Your task to perform on an android device: change the clock display to show seconds Image 0: 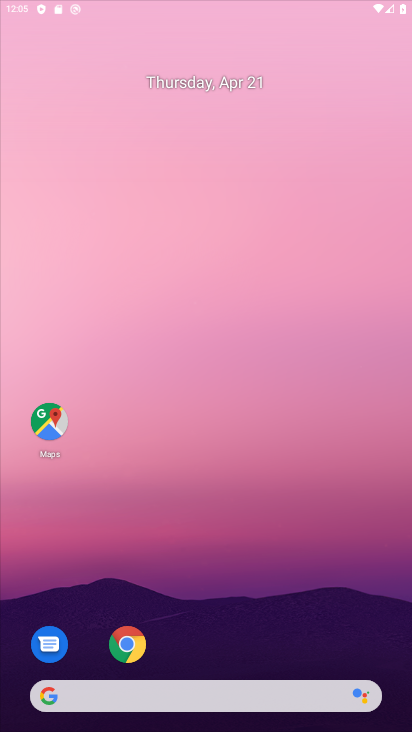
Step 0: click (50, 412)
Your task to perform on an android device: change the clock display to show seconds Image 1: 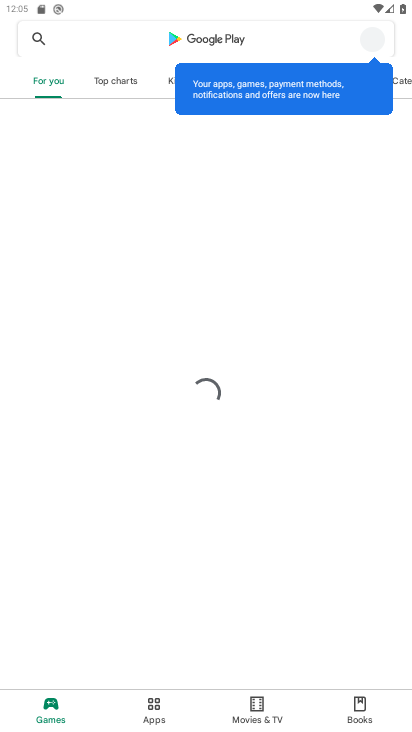
Step 1: press back button
Your task to perform on an android device: change the clock display to show seconds Image 2: 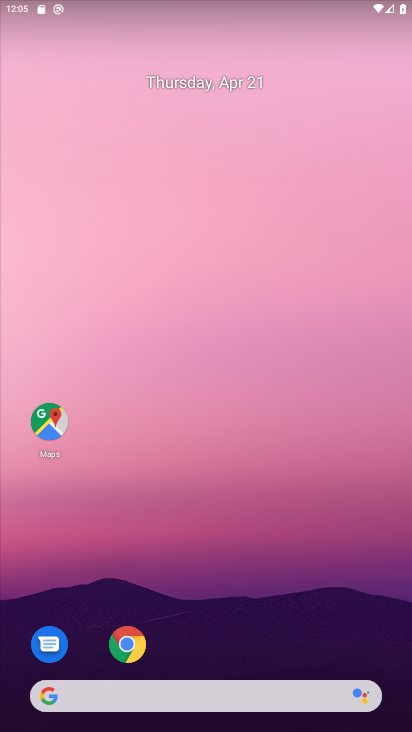
Step 2: drag from (249, 529) to (313, 54)
Your task to perform on an android device: change the clock display to show seconds Image 3: 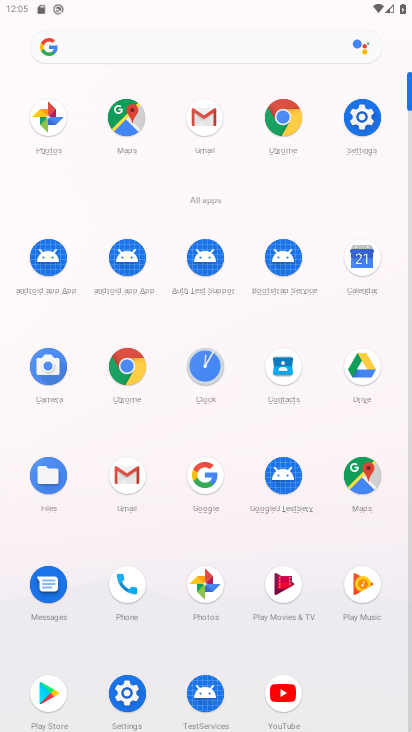
Step 3: click (205, 367)
Your task to perform on an android device: change the clock display to show seconds Image 4: 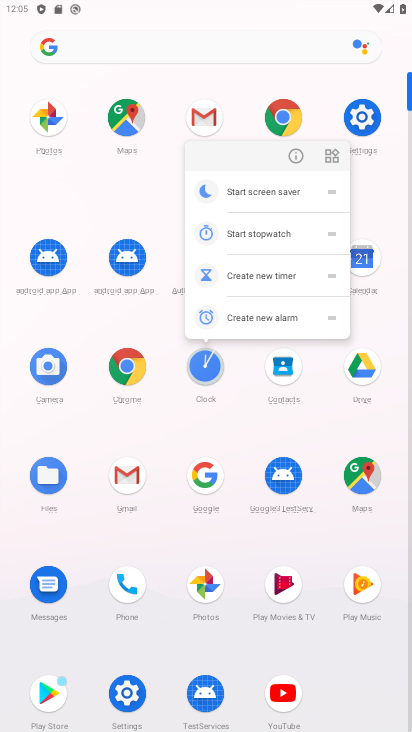
Step 4: click (209, 365)
Your task to perform on an android device: change the clock display to show seconds Image 5: 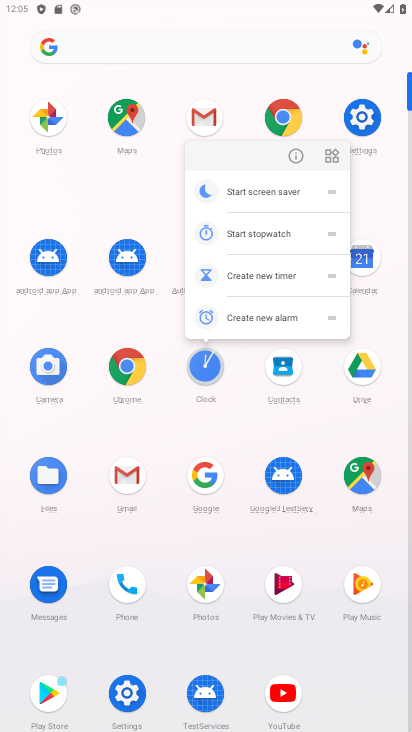
Step 5: click (209, 365)
Your task to perform on an android device: change the clock display to show seconds Image 6: 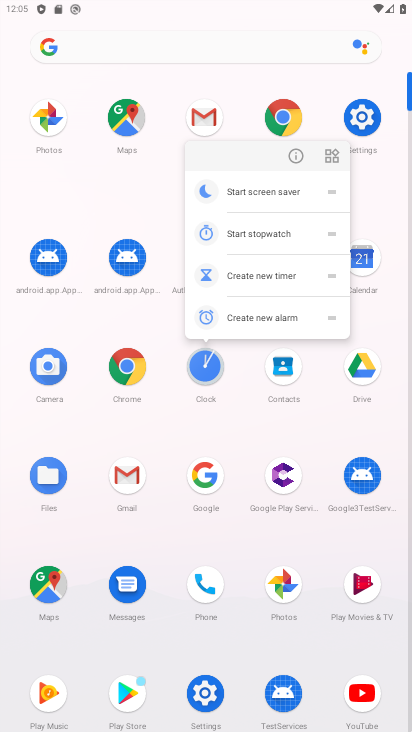
Step 6: click (207, 367)
Your task to perform on an android device: change the clock display to show seconds Image 7: 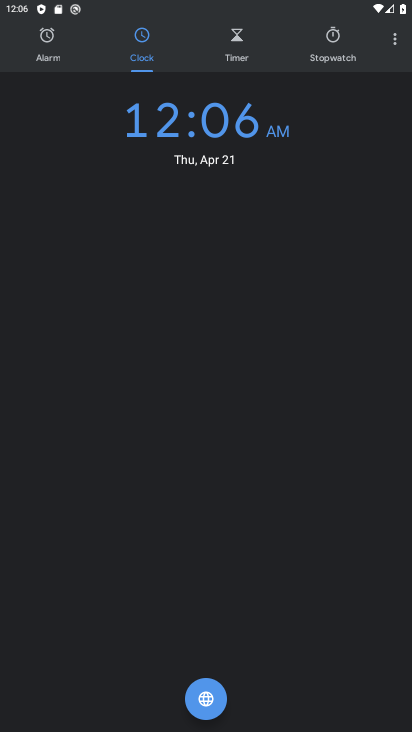
Step 7: drag from (393, 37) to (355, 90)
Your task to perform on an android device: change the clock display to show seconds Image 8: 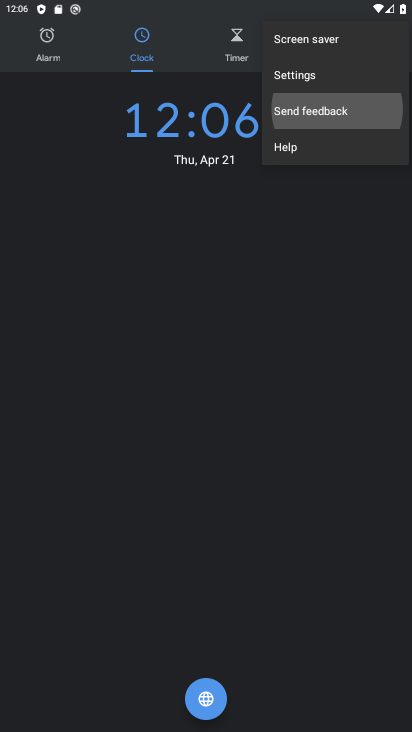
Step 8: click (343, 217)
Your task to perform on an android device: change the clock display to show seconds Image 9: 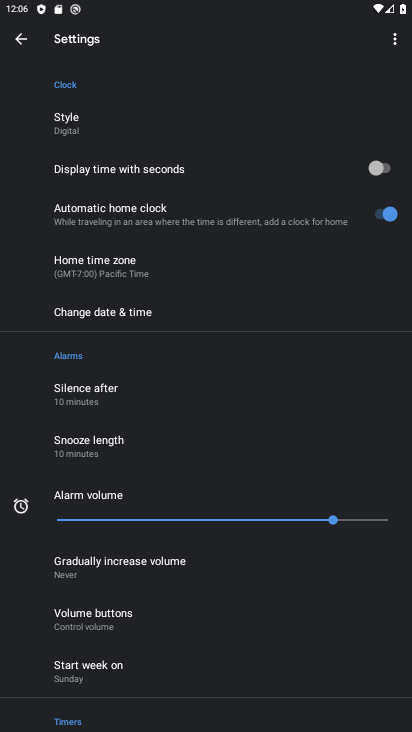
Step 9: click (15, 42)
Your task to perform on an android device: change the clock display to show seconds Image 10: 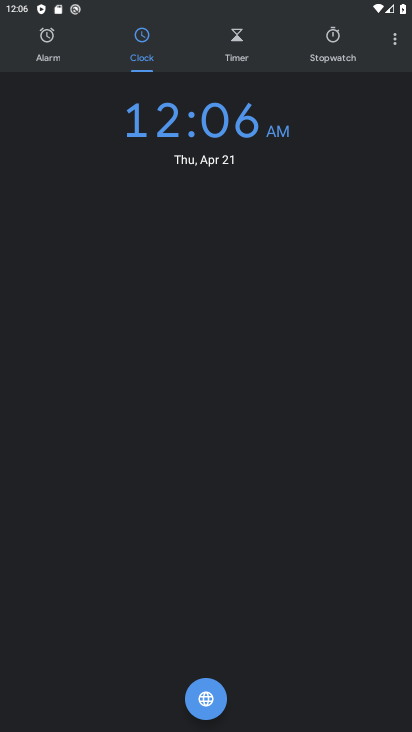
Step 10: click (411, 38)
Your task to perform on an android device: change the clock display to show seconds Image 11: 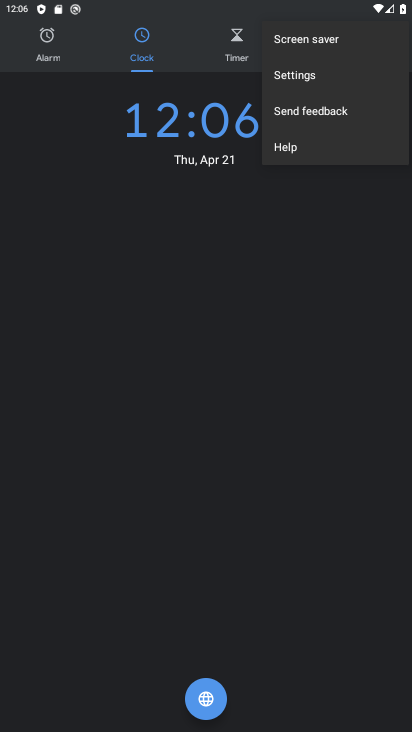
Step 11: click (305, 79)
Your task to perform on an android device: change the clock display to show seconds Image 12: 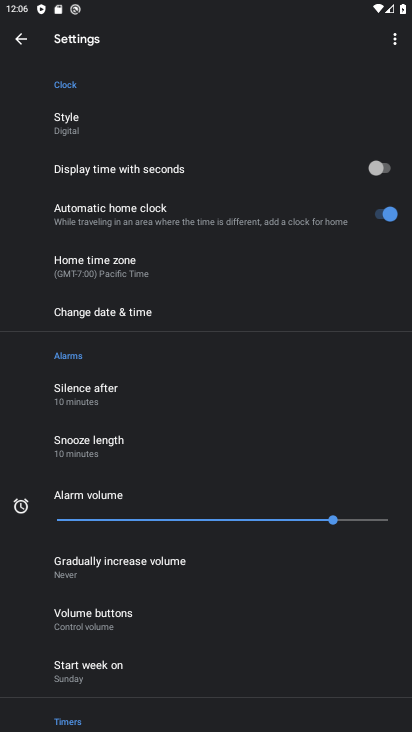
Step 12: click (373, 164)
Your task to perform on an android device: change the clock display to show seconds Image 13: 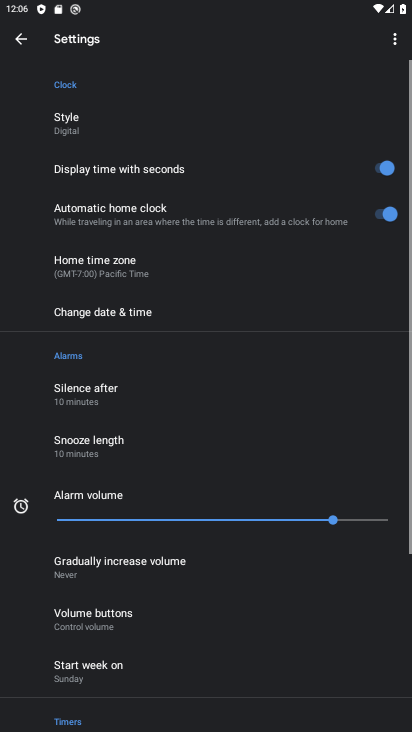
Step 13: task complete